Your task to perform on an android device: Go to Yahoo.com Image 0: 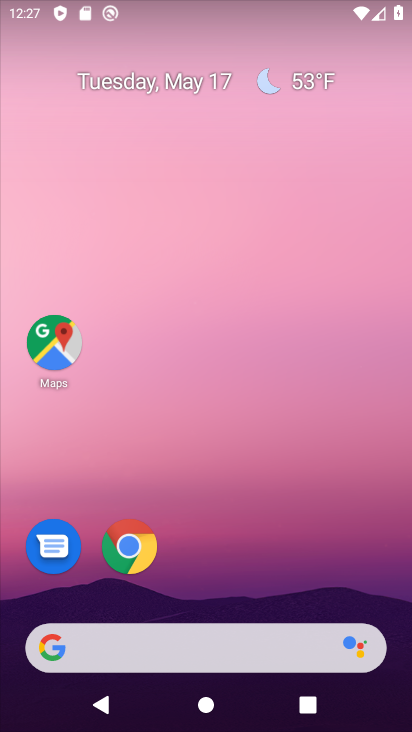
Step 0: click (135, 554)
Your task to perform on an android device: Go to Yahoo.com Image 1: 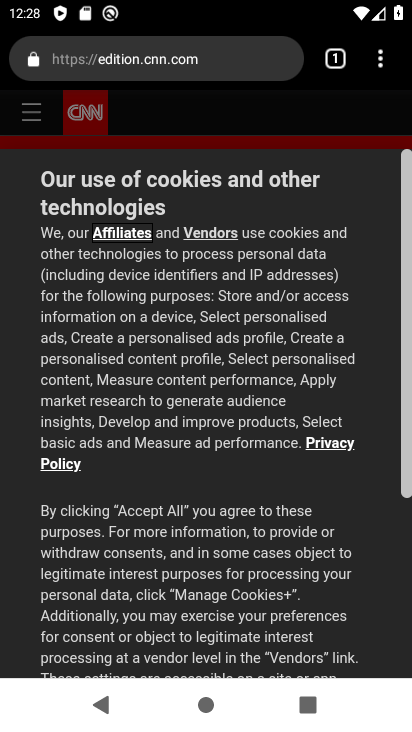
Step 1: click (340, 64)
Your task to perform on an android device: Go to Yahoo.com Image 2: 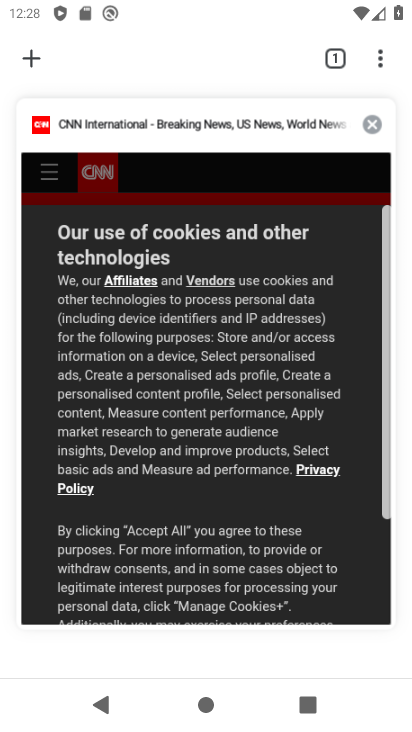
Step 2: click (41, 59)
Your task to perform on an android device: Go to Yahoo.com Image 3: 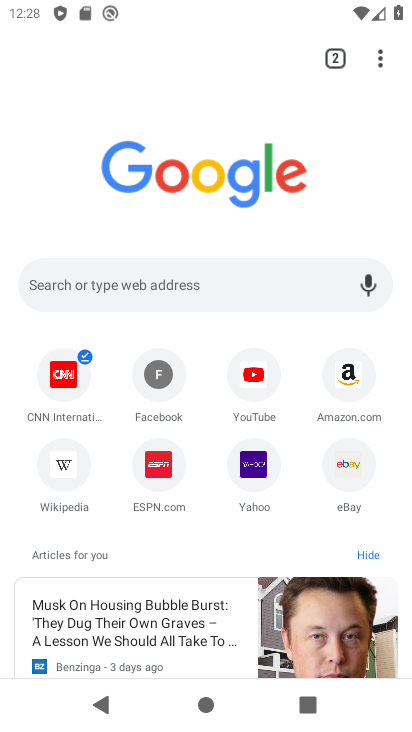
Step 3: click (252, 465)
Your task to perform on an android device: Go to Yahoo.com Image 4: 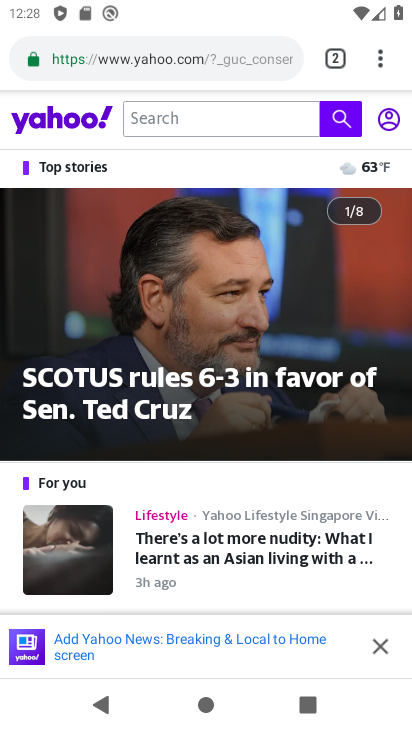
Step 4: task complete